Your task to perform on an android device: Open Youtube and go to the subscriptions tab Image 0: 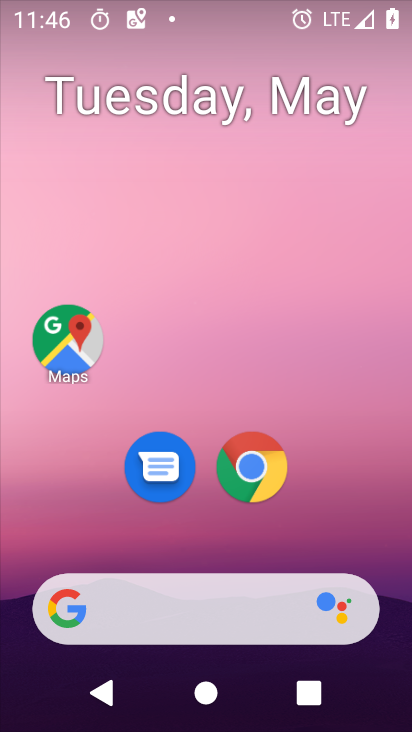
Step 0: drag from (353, 517) to (225, 40)
Your task to perform on an android device: Open Youtube and go to the subscriptions tab Image 1: 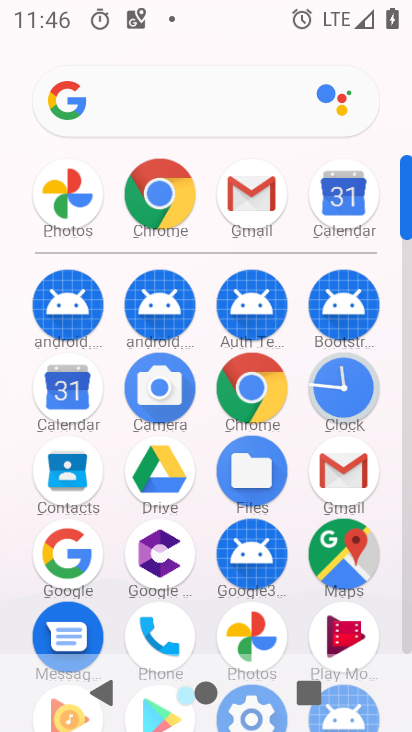
Step 1: drag from (15, 564) to (15, 236)
Your task to perform on an android device: Open Youtube and go to the subscriptions tab Image 2: 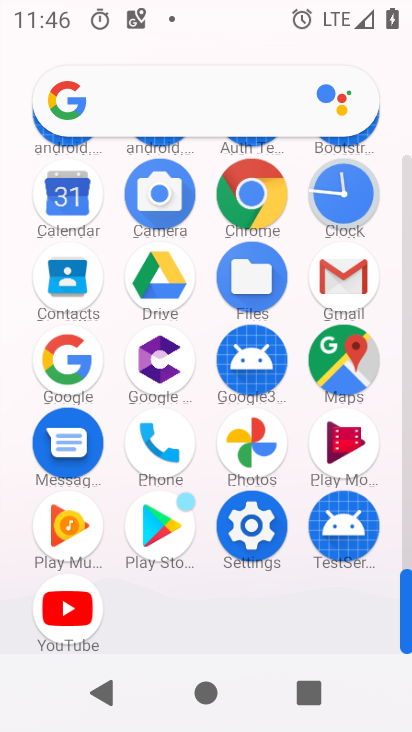
Step 2: click (68, 606)
Your task to perform on an android device: Open Youtube and go to the subscriptions tab Image 3: 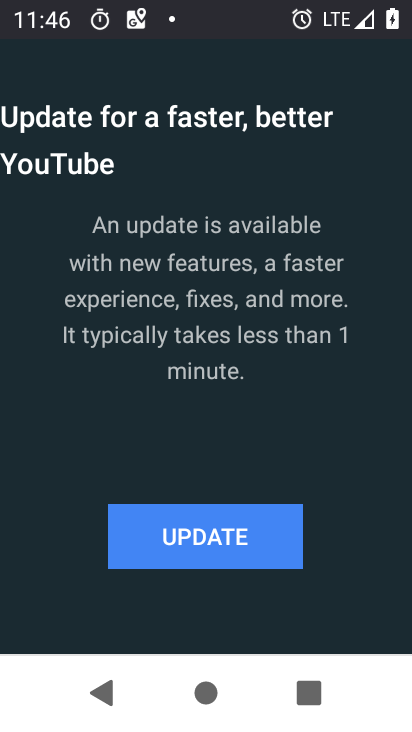
Step 3: click (196, 522)
Your task to perform on an android device: Open Youtube and go to the subscriptions tab Image 4: 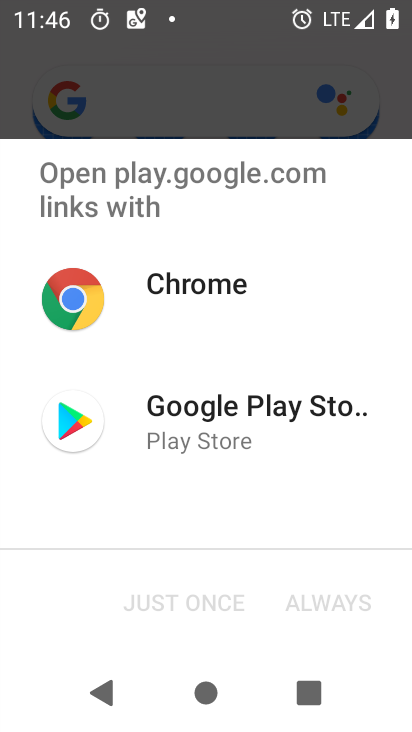
Step 4: click (196, 399)
Your task to perform on an android device: Open Youtube and go to the subscriptions tab Image 5: 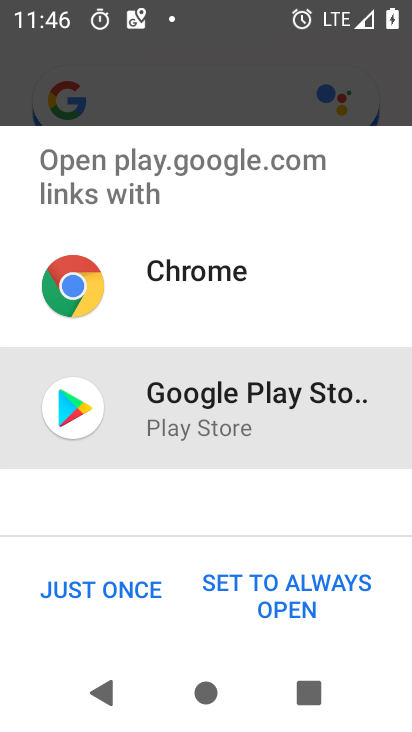
Step 5: click (102, 600)
Your task to perform on an android device: Open Youtube and go to the subscriptions tab Image 6: 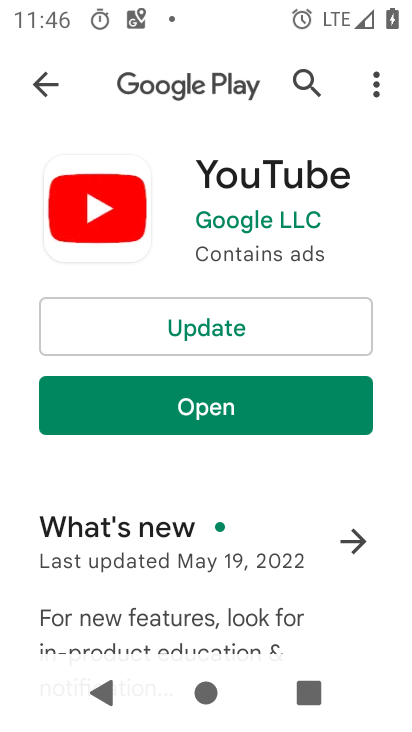
Step 6: click (205, 321)
Your task to perform on an android device: Open Youtube and go to the subscriptions tab Image 7: 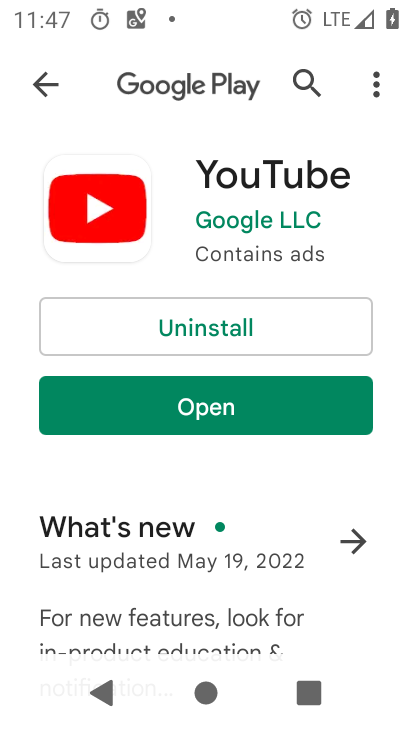
Step 7: click (233, 406)
Your task to perform on an android device: Open Youtube and go to the subscriptions tab Image 8: 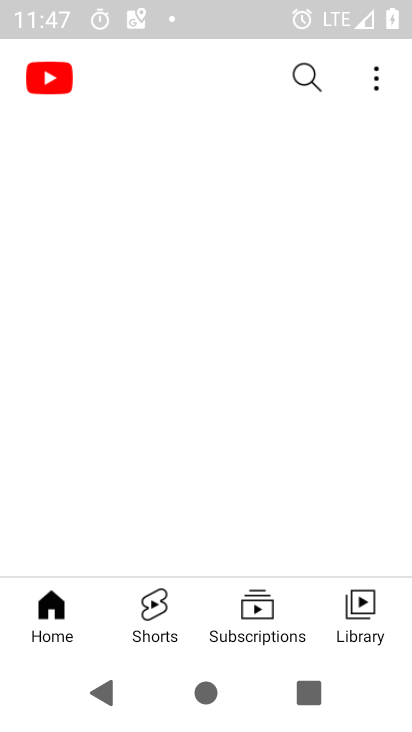
Step 8: click (252, 618)
Your task to perform on an android device: Open Youtube and go to the subscriptions tab Image 9: 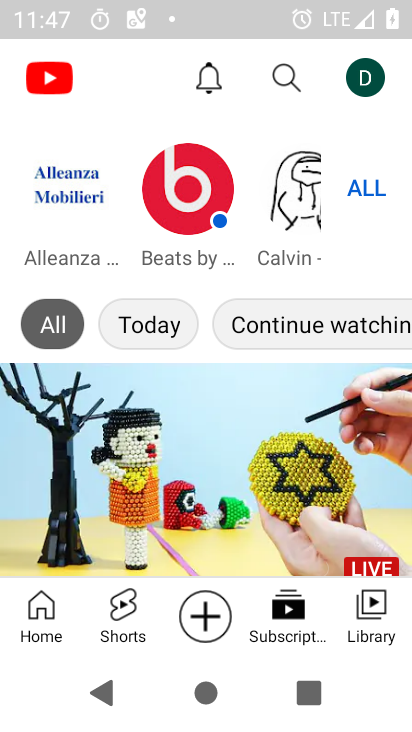
Step 9: click (265, 619)
Your task to perform on an android device: Open Youtube and go to the subscriptions tab Image 10: 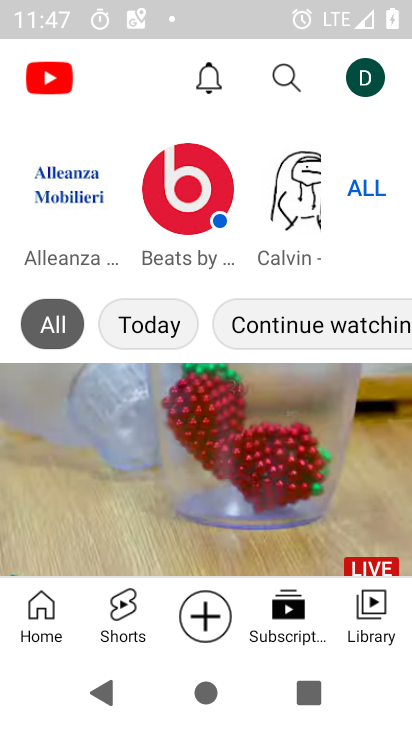
Step 10: task complete